Your task to perform on an android device: Search for seafood restaurants on Google Maps Image 0: 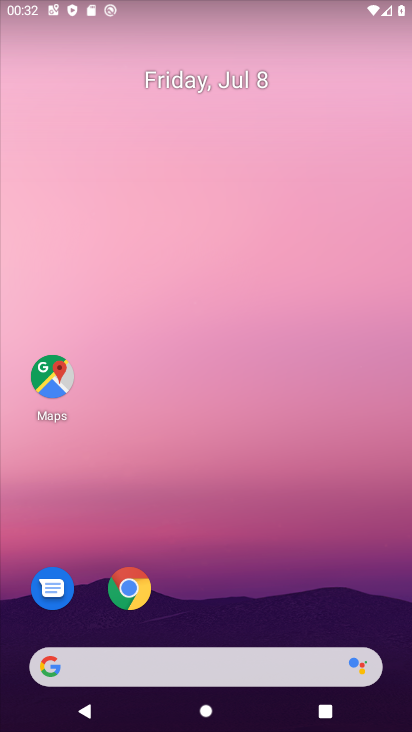
Step 0: drag from (198, 460) to (221, 18)
Your task to perform on an android device: Search for seafood restaurants on Google Maps Image 1: 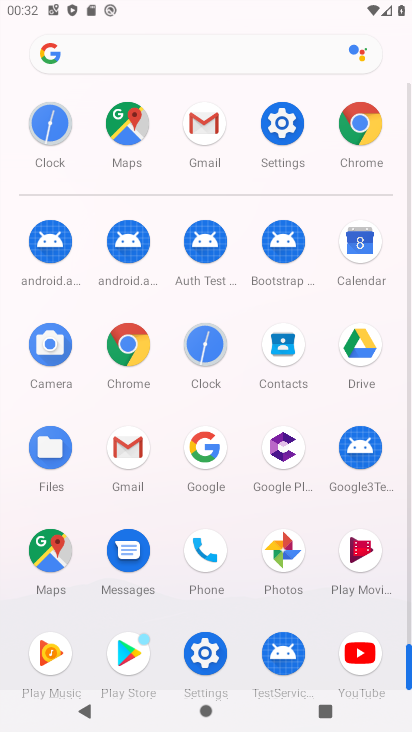
Step 1: click (43, 560)
Your task to perform on an android device: Search for seafood restaurants on Google Maps Image 2: 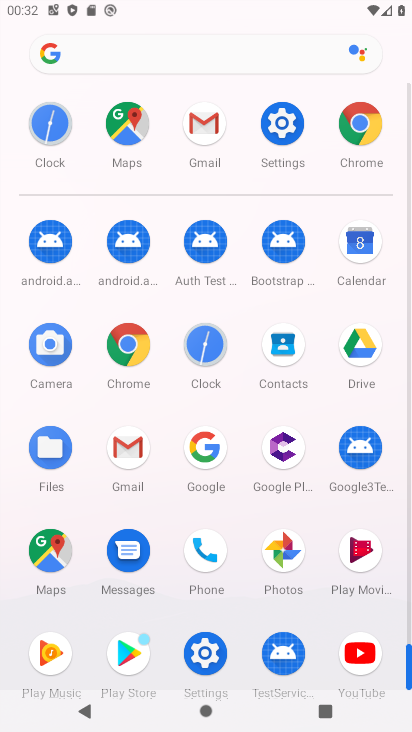
Step 2: click (43, 558)
Your task to perform on an android device: Search for seafood restaurants on Google Maps Image 3: 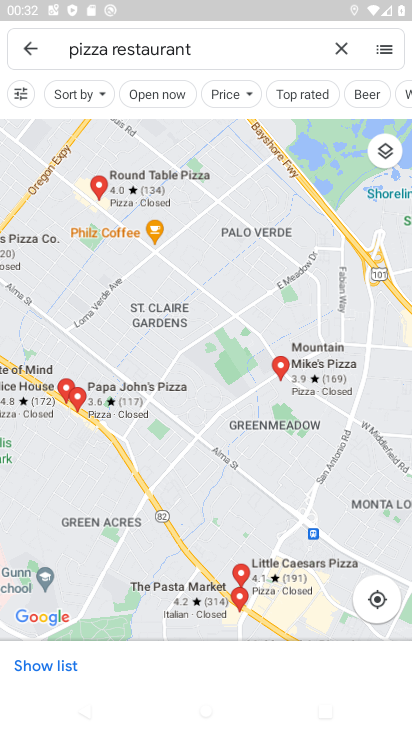
Step 3: click (344, 52)
Your task to perform on an android device: Search for seafood restaurants on Google Maps Image 4: 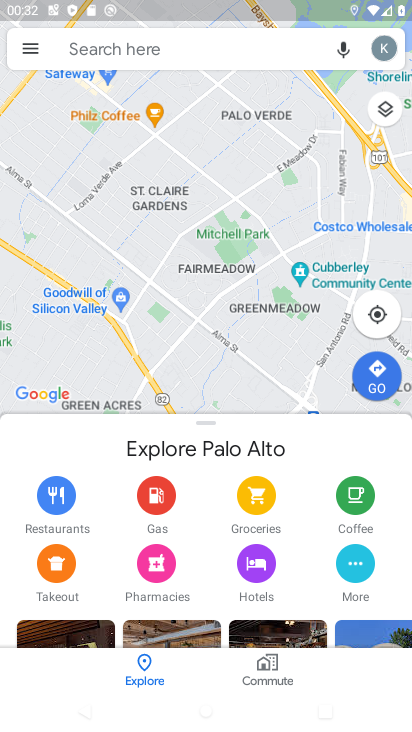
Step 4: click (161, 29)
Your task to perform on an android device: Search for seafood restaurants on Google Maps Image 5: 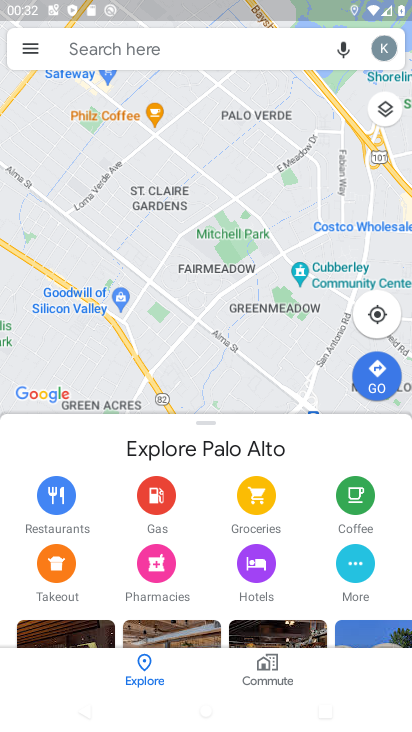
Step 5: click (148, 42)
Your task to perform on an android device: Search for seafood restaurants on Google Maps Image 6: 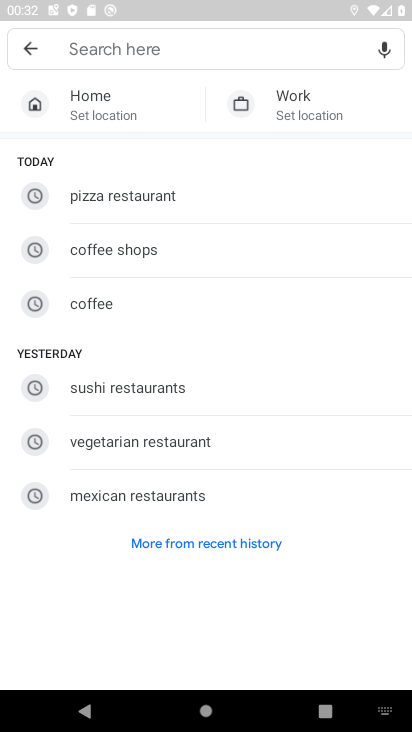
Step 6: type "seafood restaurants"
Your task to perform on an android device: Search for seafood restaurants on Google Maps Image 7: 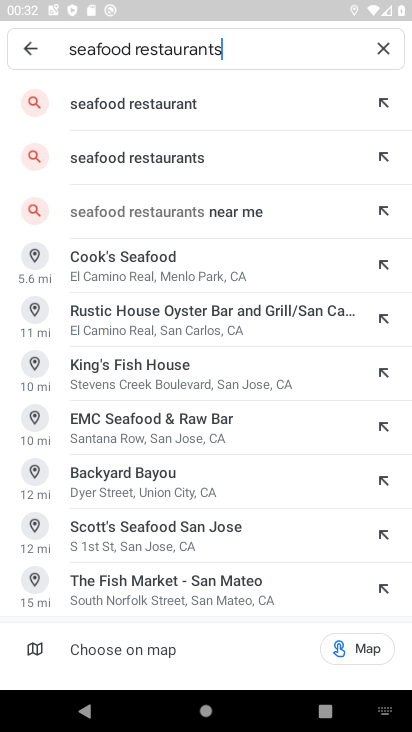
Step 7: click (104, 119)
Your task to perform on an android device: Search for seafood restaurants on Google Maps Image 8: 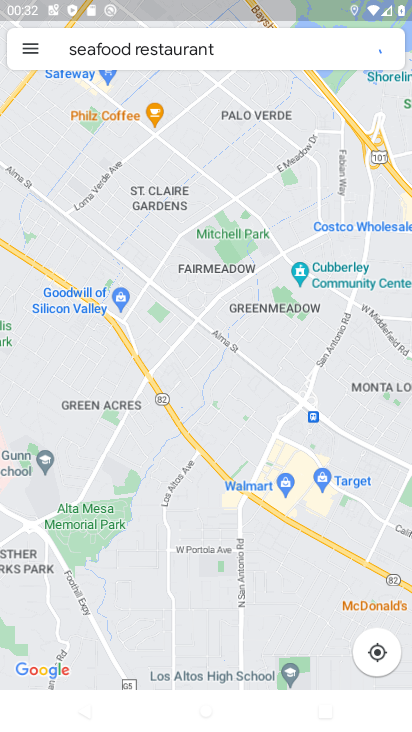
Step 8: task complete